Your task to perform on an android device: turn off smart reply in the gmail app Image 0: 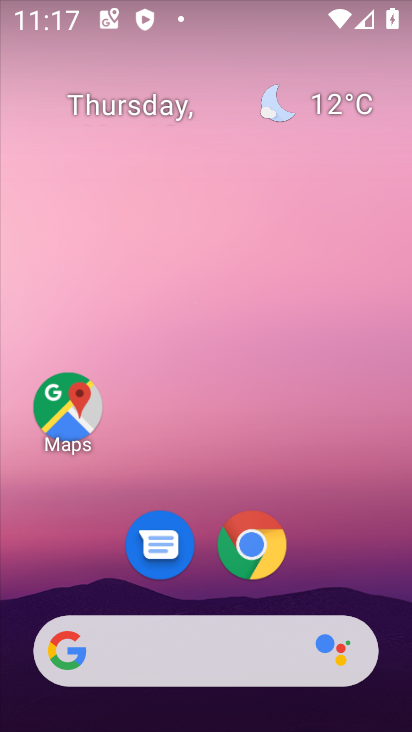
Step 0: drag from (98, 538) to (150, 373)
Your task to perform on an android device: turn off smart reply in the gmail app Image 1: 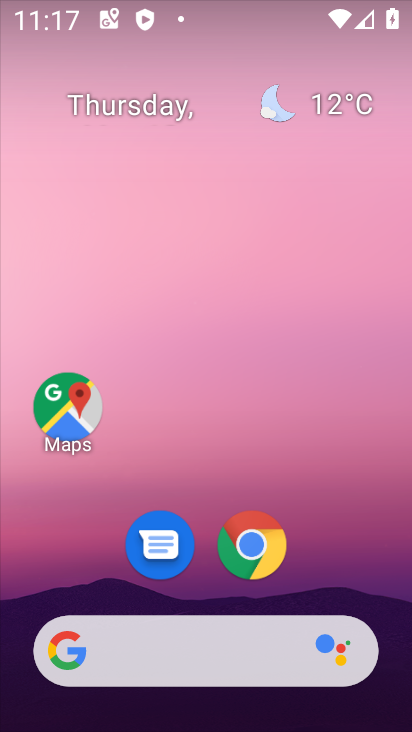
Step 1: drag from (179, 352) to (181, 98)
Your task to perform on an android device: turn off smart reply in the gmail app Image 2: 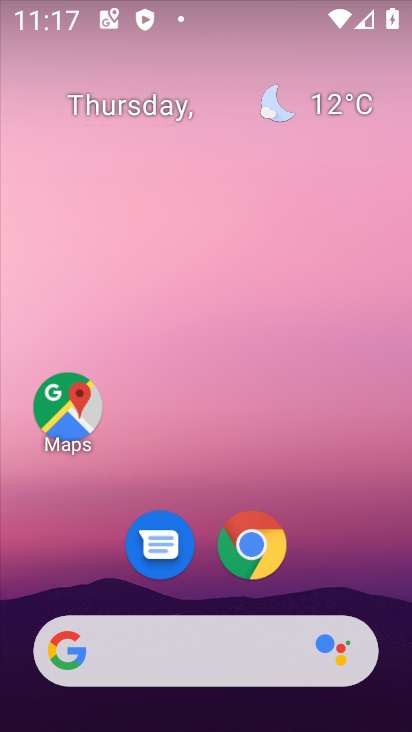
Step 2: drag from (217, 466) to (242, 218)
Your task to perform on an android device: turn off smart reply in the gmail app Image 3: 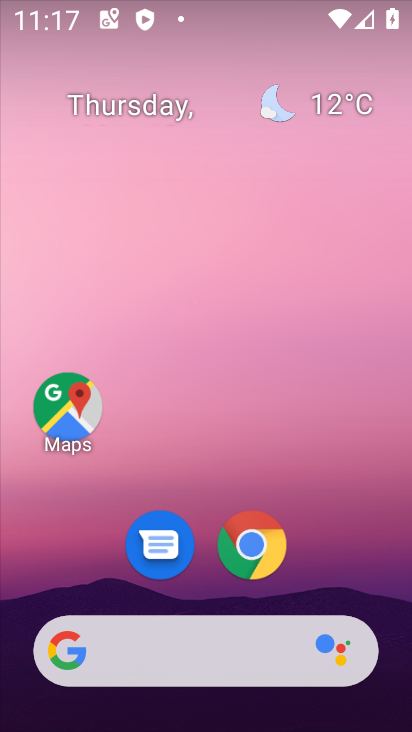
Step 3: drag from (208, 558) to (242, 235)
Your task to perform on an android device: turn off smart reply in the gmail app Image 4: 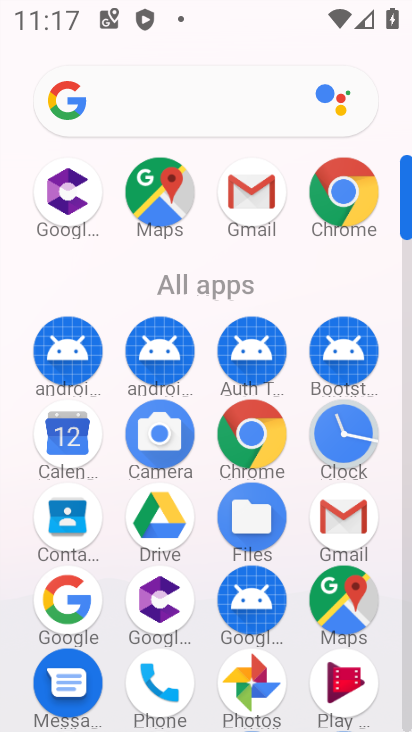
Step 4: click (234, 186)
Your task to perform on an android device: turn off smart reply in the gmail app Image 5: 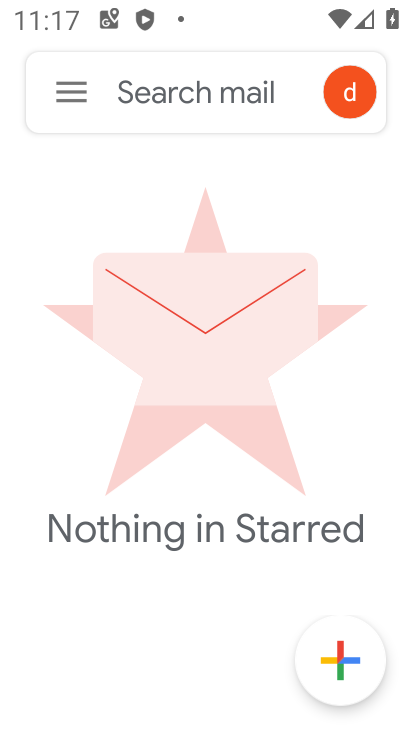
Step 5: click (57, 78)
Your task to perform on an android device: turn off smart reply in the gmail app Image 6: 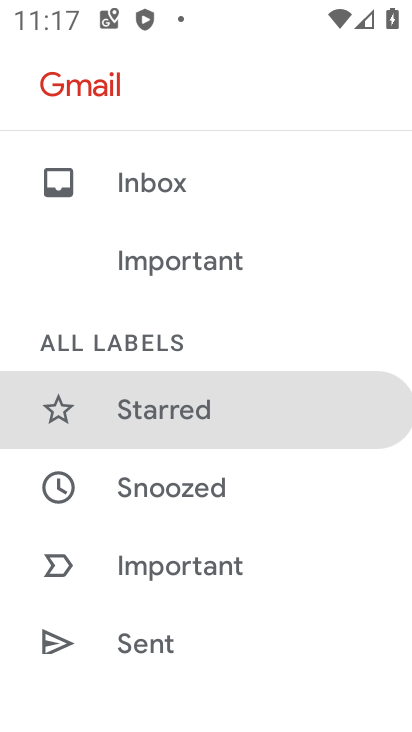
Step 6: drag from (114, 574) to (131, 283)
Your task to perform on an android device: turn off smart reply in the gmail app Image 7: 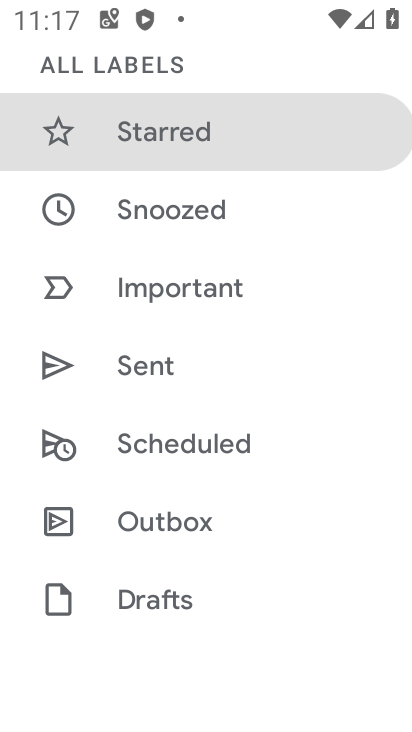
Step 7: drag from (190, 631) to (160, 231)
Your task to perform on an android device: turn off smart reply in the gmail app Image 8: 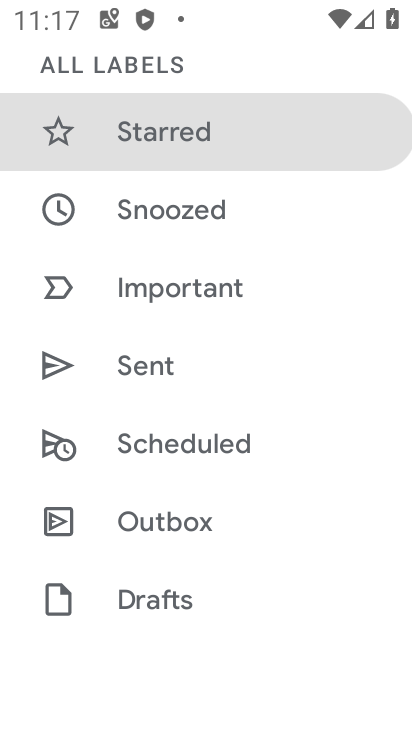
Step 8: drag from (183, 564) to (180, 262)
Your task to perform on an android device: turn off smart reply in the gmail app Image 9: 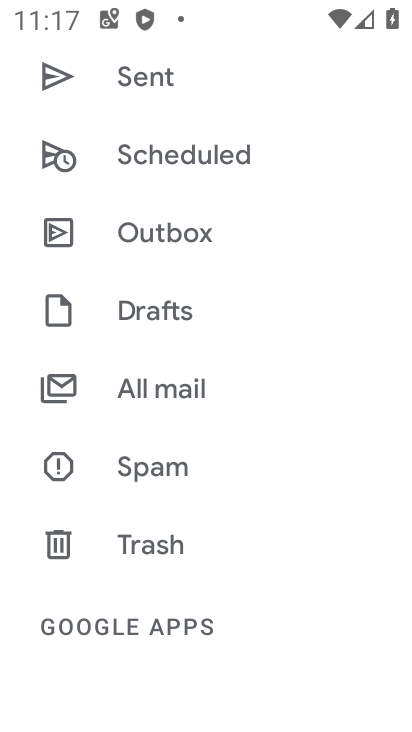
Step 9: drag from (110, 556) to (105, 176)
Your task to perform on an android device: turn off smart reply in the gmail app Image 10: 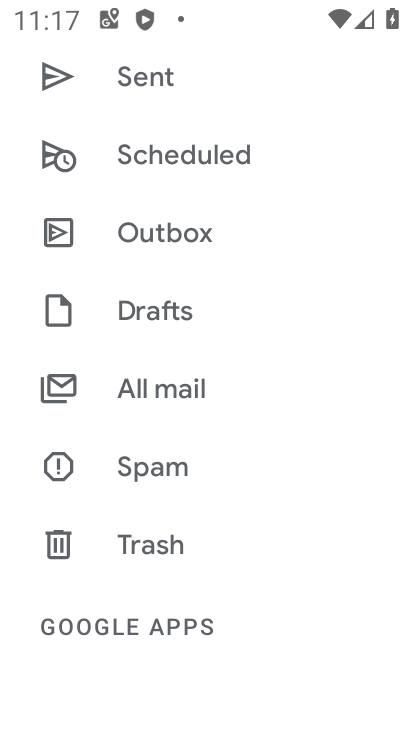
Step 10: drag from (176, 462) to (134, 232)
Your task to perform on an android device: turn off smart reply in the gmail app Image 11: 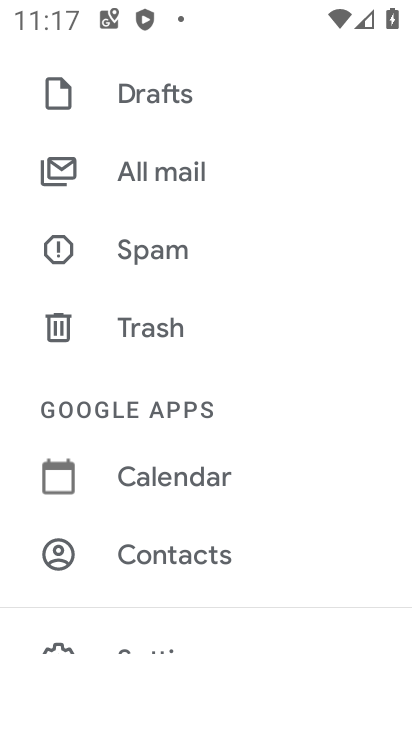
Step 11: drag from (206, 621) to (218, 279)
Your task to perform on an android device: turn off smart reply in the gmail app Image 12: 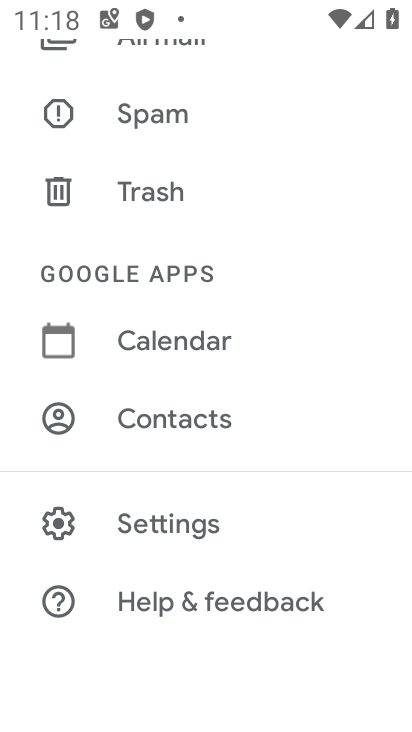
Step 12: click (165, 523)
Your task to perform on an android device: turn off smart reply in the gmail app Image 13: 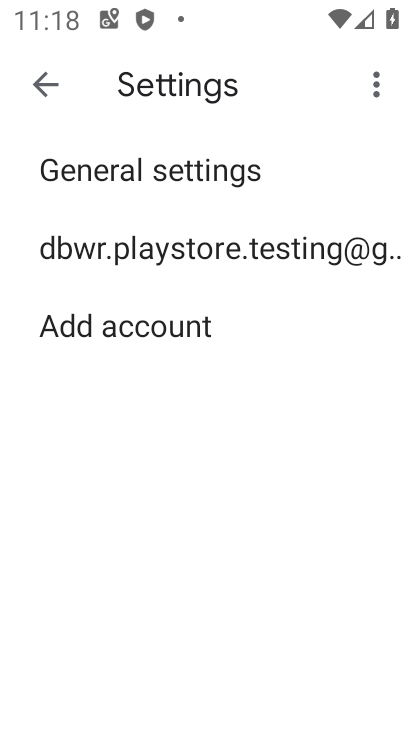
Step 13: click (240, 245)
Your task to perform on an android device: turn off smart reply in the gmail app Image 14: 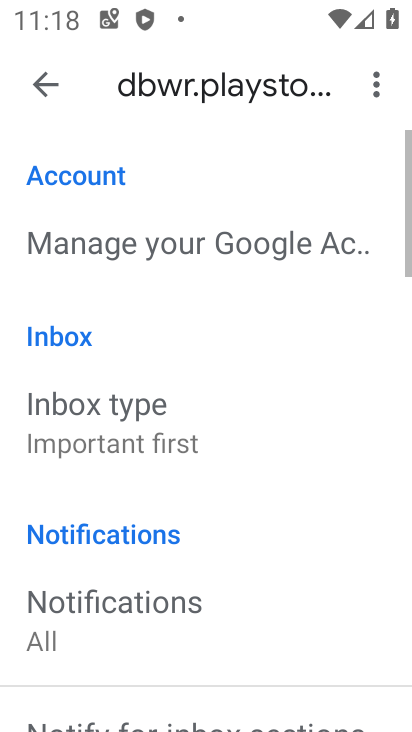
Step 14: drag from (229, 501) to (226, 335)
Your task to perform on an android device: turn off smart reply in the gmail app Image 15: 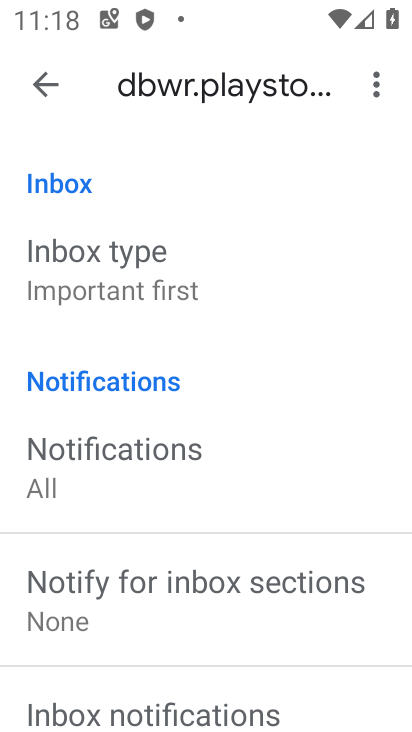
Step 15: drag from (220, 391) to (230, 567)
Your task to perform on an android device: turn off smart reply in the gmail app Image 16: 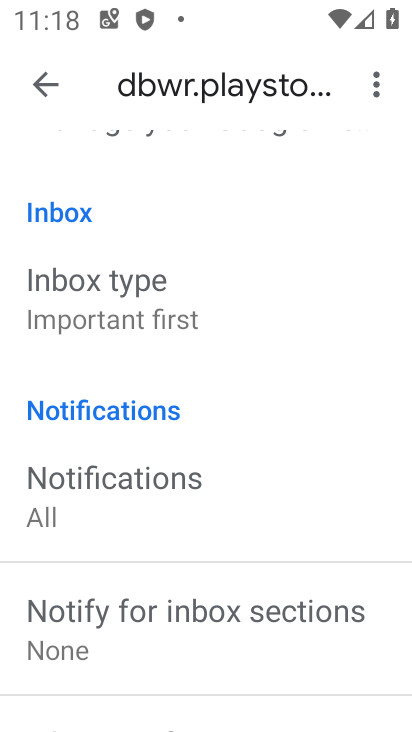
Step 16: drag from (201, 614) to (210, 213)
Your task to perform on an android device: turn off smart reply in the gmail app Image 17: 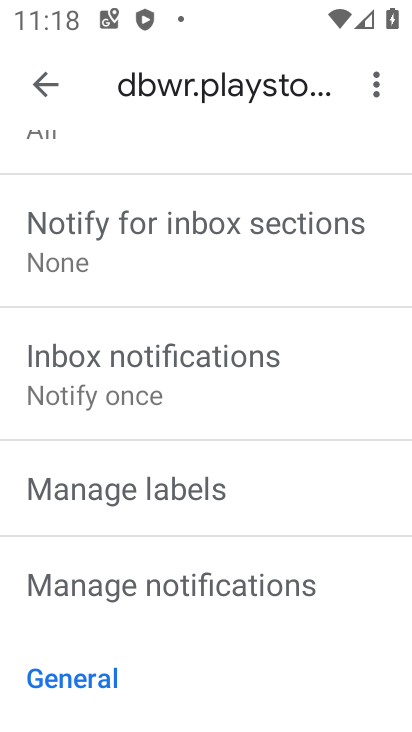
Step 17: drag from (239, 600) to (213, 234)
Your task to perform on an android device: turn off smart reply in the gmail app Image 18: 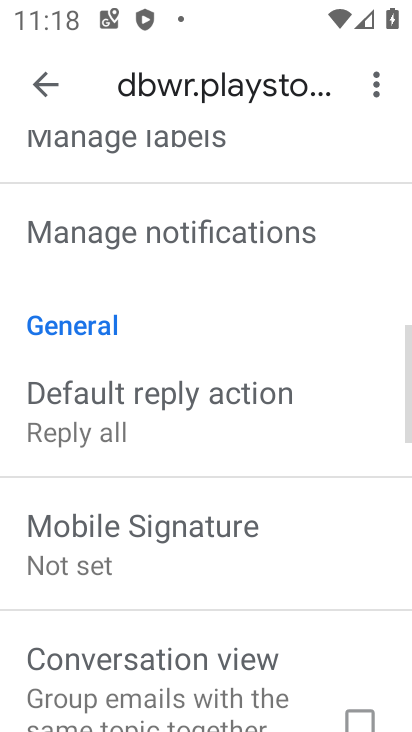
Step 18: drag from (181, 596) to (164, 217)
Your task to perform on an android device: turn off smart reply in the gmail app Image 19: 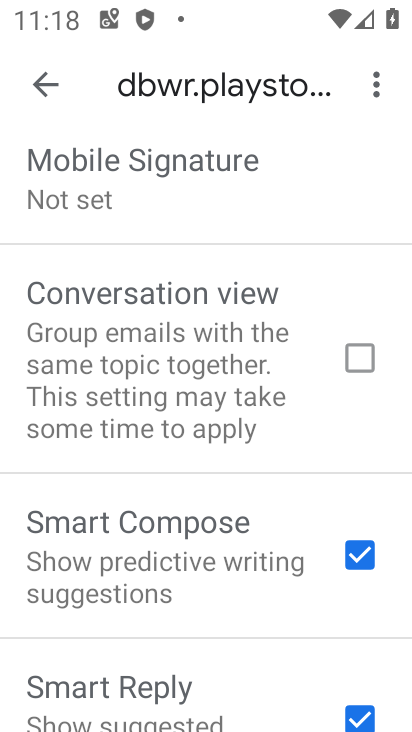
Step 19: drag from (105, 623) to (153, 274)
Your task to perform on an android device: turn off smart reply in the gmail app Image 20: 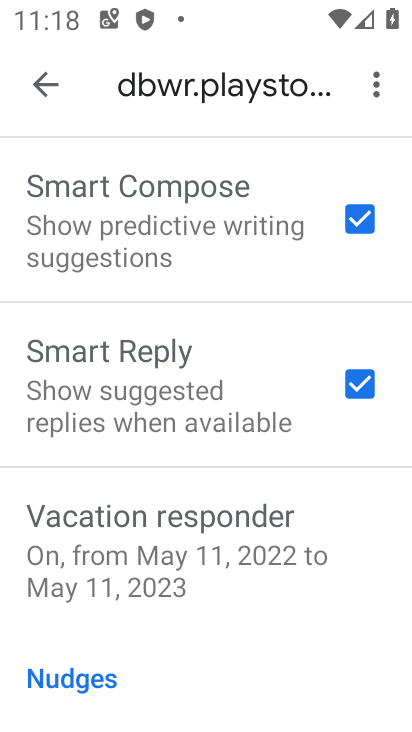
Step 20: click (357, 396)
Your task to perform on an android device: turn off smart reply in the gmail app Image 21: 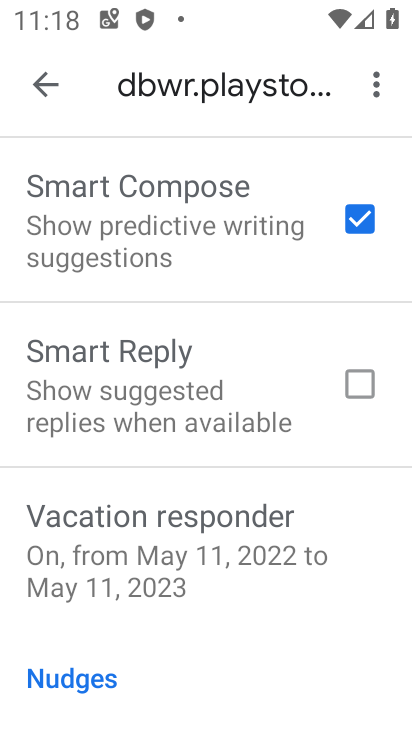
Step 21: task complete